Your task to perform on an android device: open app "Indeed Job Search" (install if not already installed) and enter user name: "quixotic@inbox.com" and password: "microphones" Image 0: 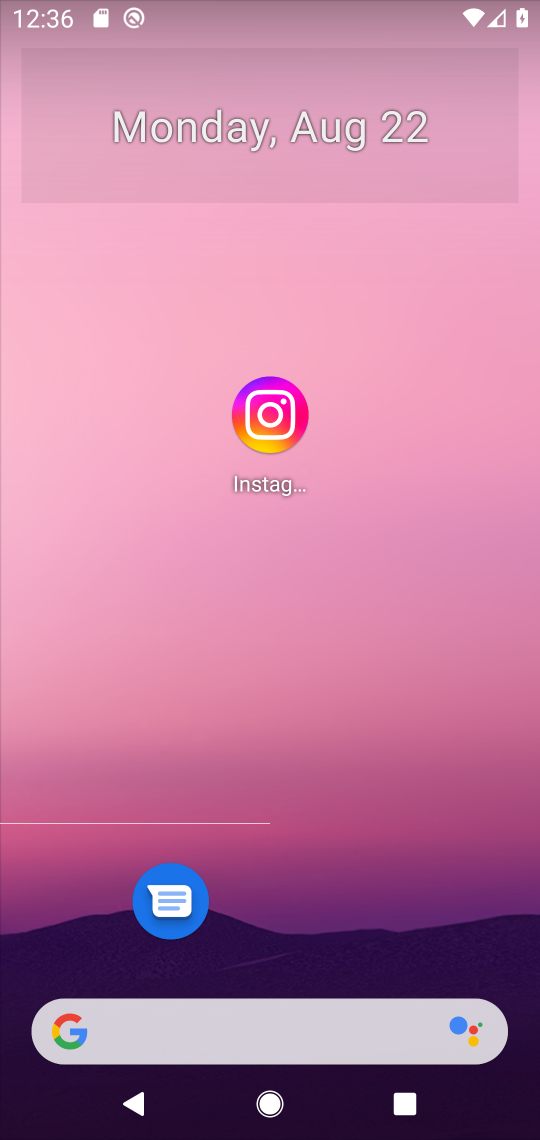
Step 0: drag from (346, 883) to (378, 165)
Your task to perform on an android device: open app "Indeed Job Search" (install if not already installed) and enter user name: "quixotic@inbox.com" and password: "microphones" Image 1: 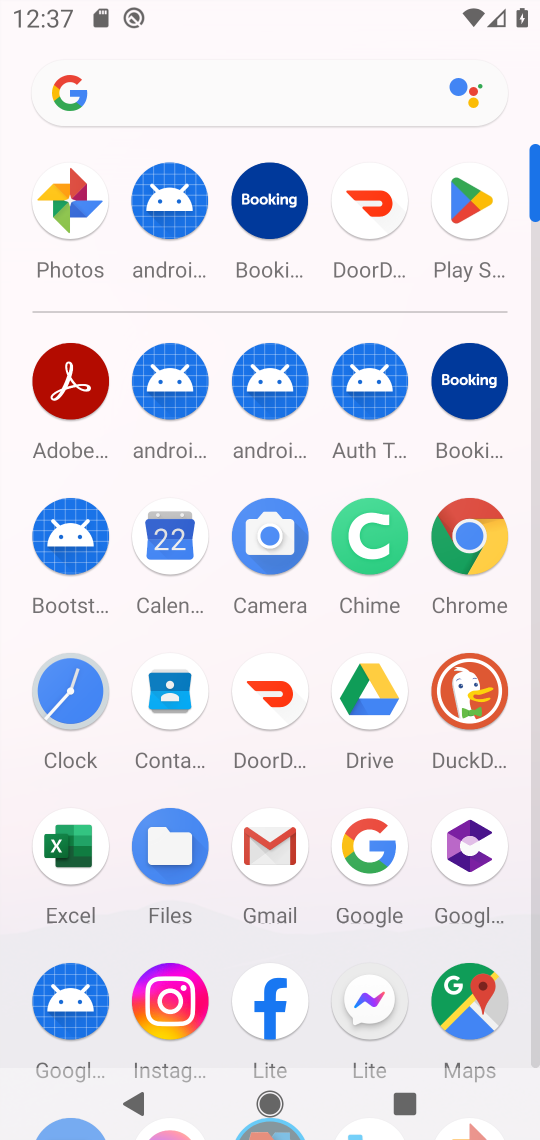
Step 1: click (493, 211)
Your task to perform on an android device: open app "Indeed Job Search" (install if not already installed) and enter user name: "quixotic@inbox.com" and password: "microphones" Image 2: 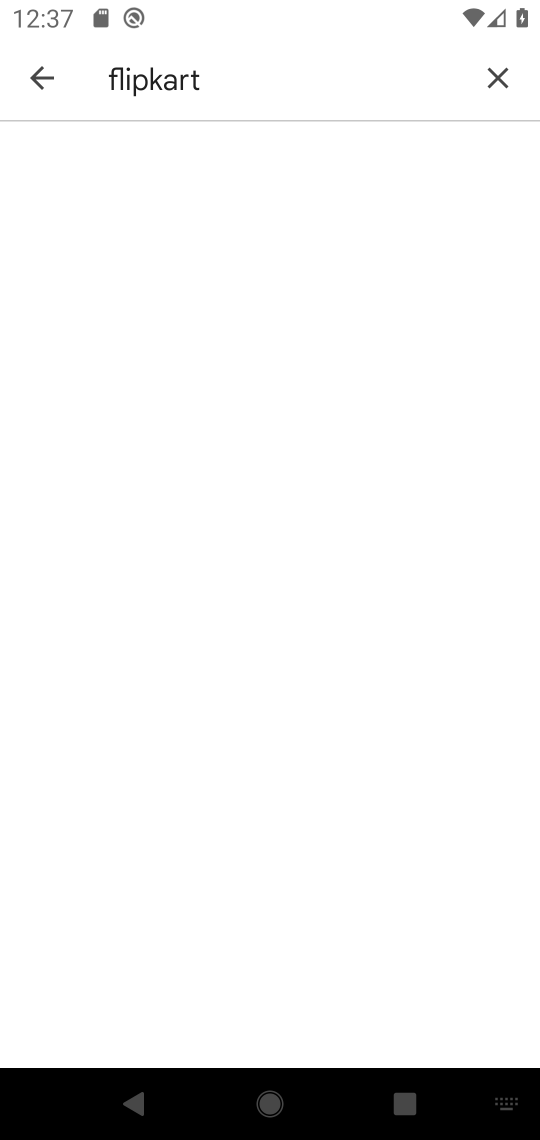
Step 2: click (491, 85)
Your task to perform on an android device: open app "Indeed Job Search" (install if not already installed) and enter user name: "quixotic@inbox.com" and password: "microphones" Image 3: 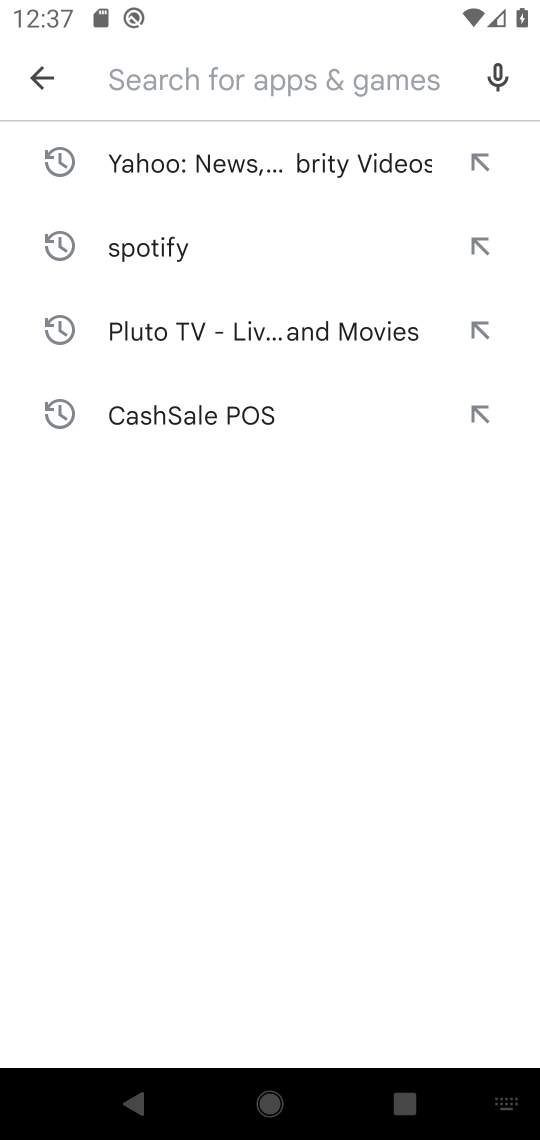
Step 3: type "indeed"
Your task to perform on an android device: open app "Indeed Job Search" (install if not already installed) and enter user name: "quixotic@inbox.com" and password: "microphones" Image 4: 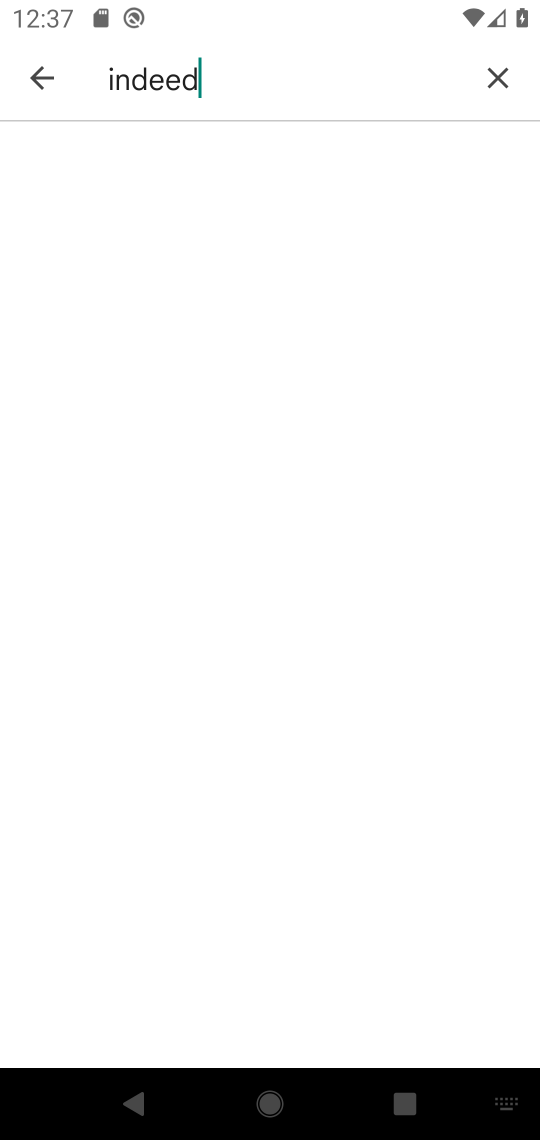
Step 4: task complete